Your task to perform on an android device: Add logitech g903 to the cart on newegg.com, then select checkout. Image 0: 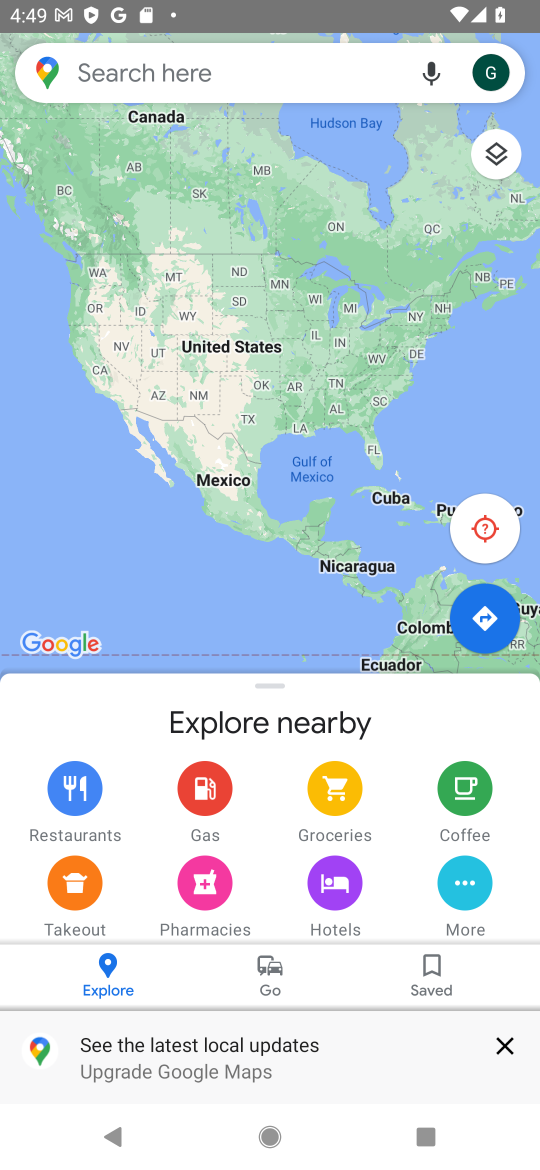
Step 0: press home button
Your task to perform on an android device: Add logitech g903 to the cart on newegg.com, then select checkout. Image 1: 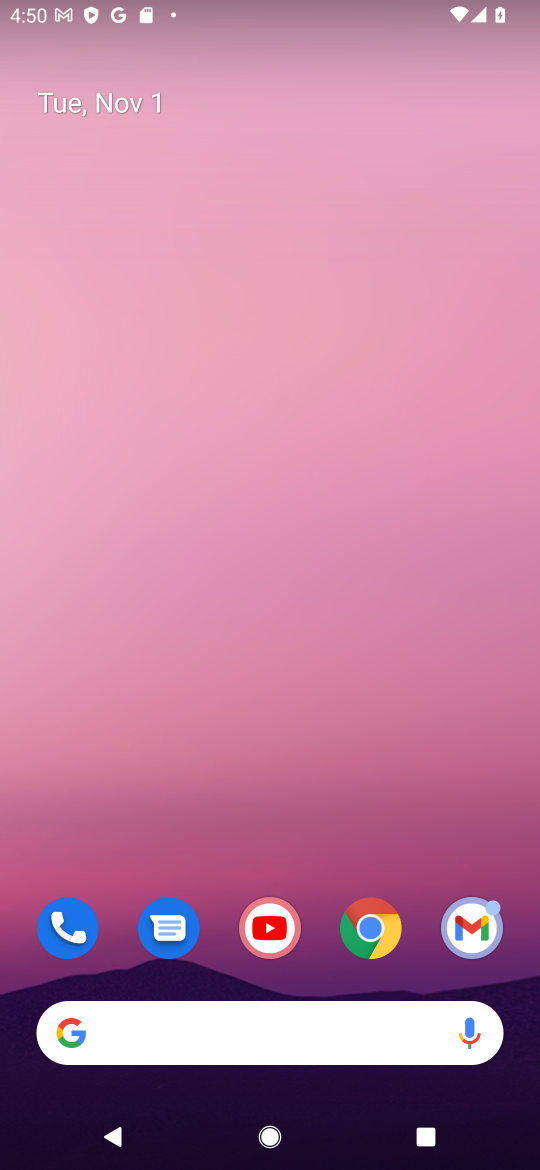
Step 1: click (379, 924)
Your task to perform on an android device: Add logitech g903 to the cart on newegg.com, then select checkout. Image 2: 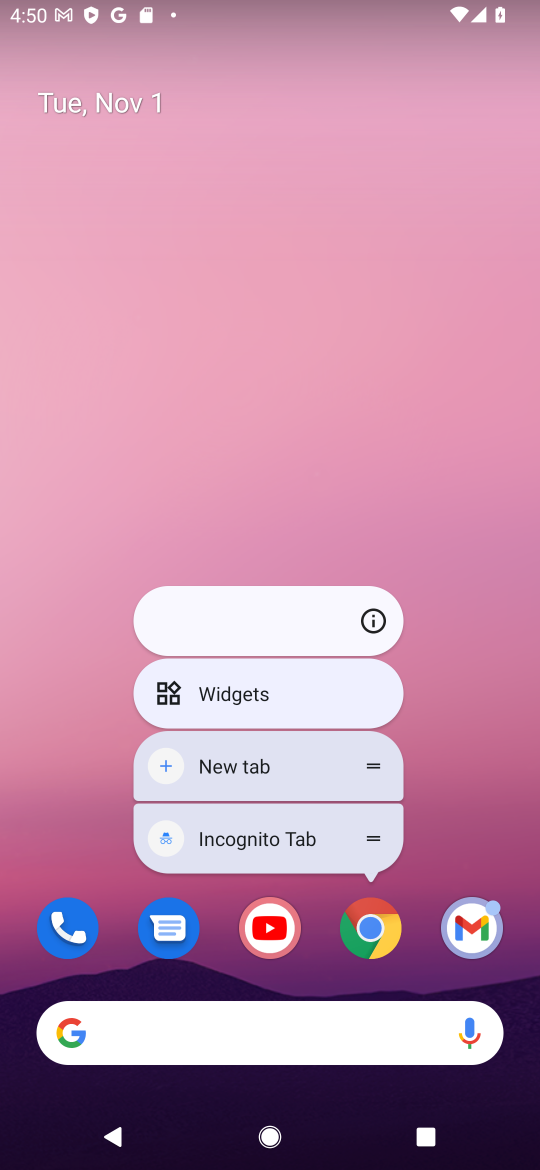
Step 2: click (387, 942)
Your task to perform on an android device: Add logitech g903 to the cart on newegg.com, then select checkout. Image 3: 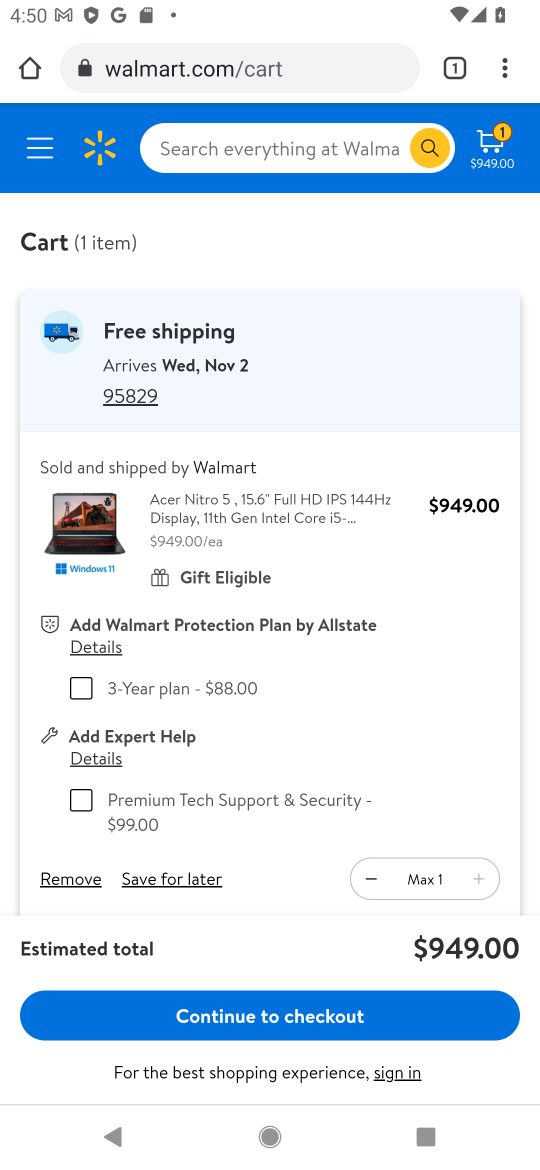
Step 3: click (274, 59)
Your task to perform on an android device: Add logitech g903 to the cart on newegg.com, then select checkout. Image 4: 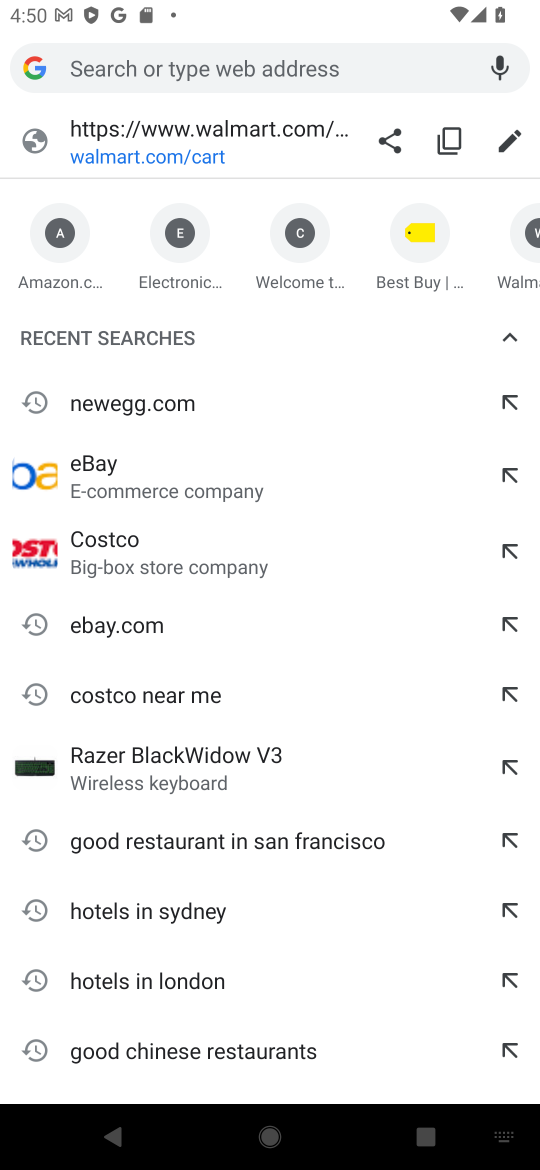
Step 4: type "newegg.com"
Your task to perform on an android device: Add logitech g903 to the cart on newegg.com, then select checkout. Image 5: 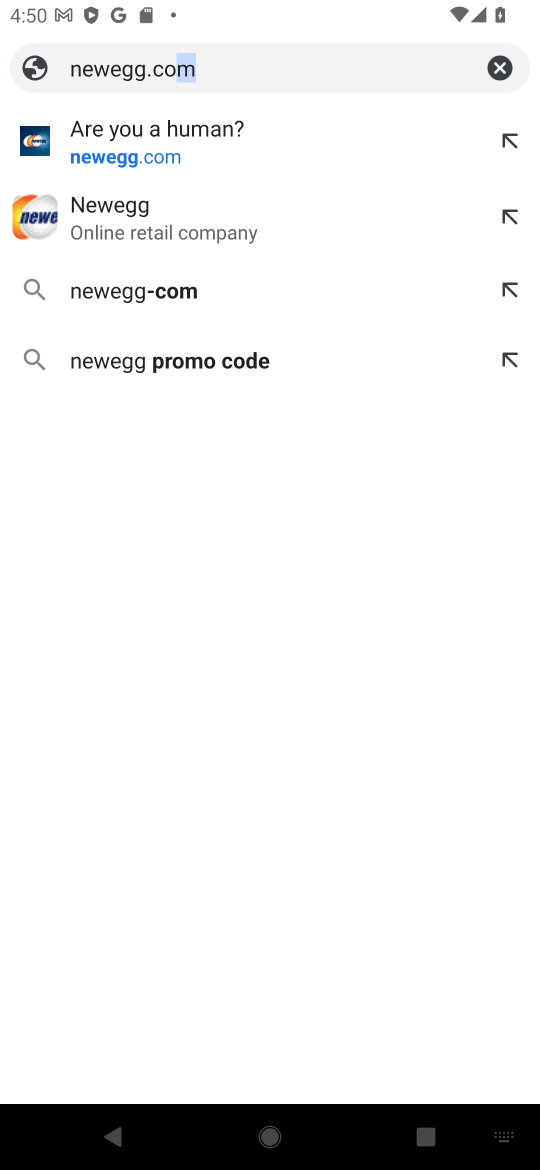
Step 5: type ""
Your task to perform on an android device: Add logitech g903 to the cart on newegg.com, then select checkout. Image 6: 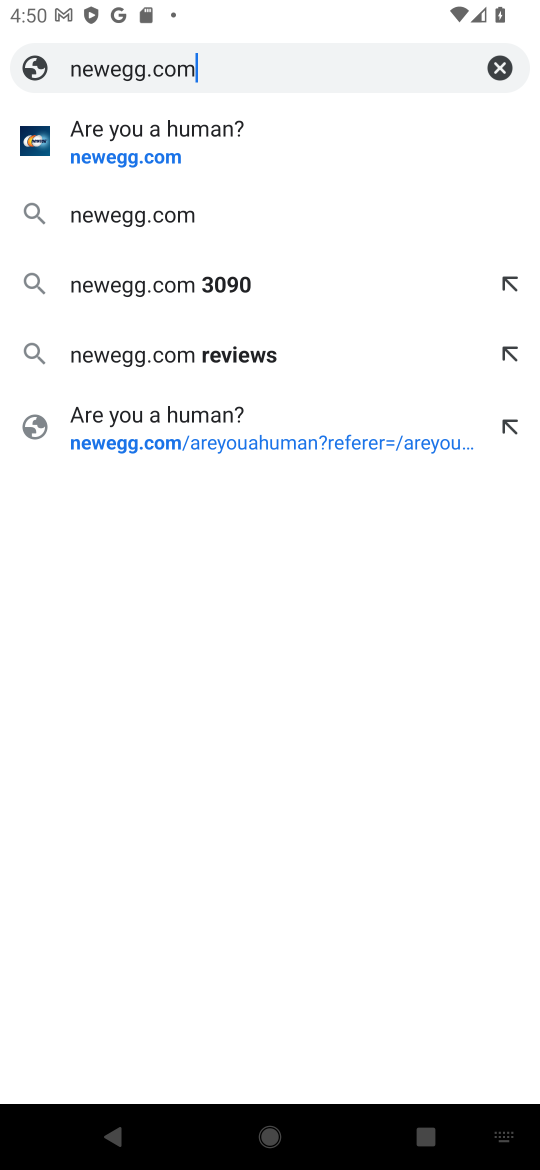
Step 6: press enter
Your task to perform on an android device: Add logitech g903 to the cart on newegg.com, then select checkout. Image 7: 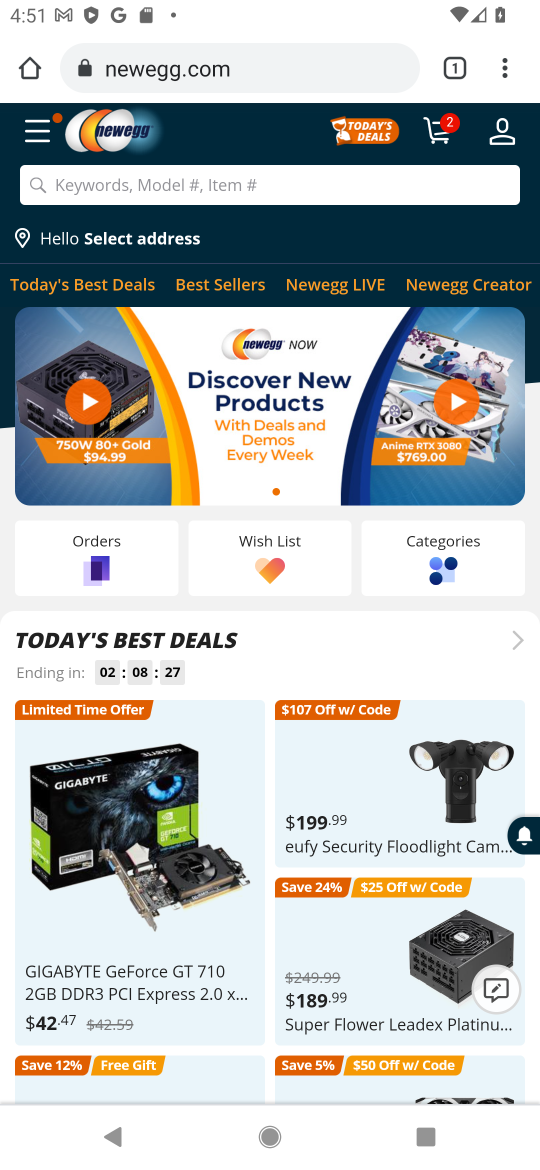
Step 7: click (375, 176)
Your task to perform on an android device: Add logitech g903 to the cart on newegg.com, then select checkout. Image 8: 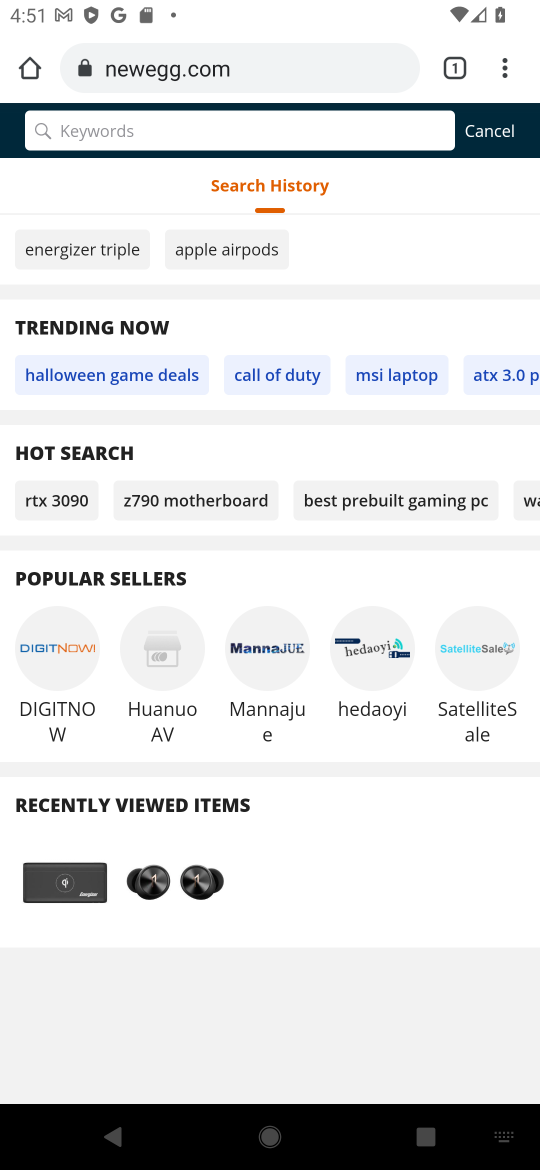
Step 8: type "logitech g903"
Your task to perform on an android device: Add logitech g903 to the cart on newegg.com, then select checkout. Image 9: 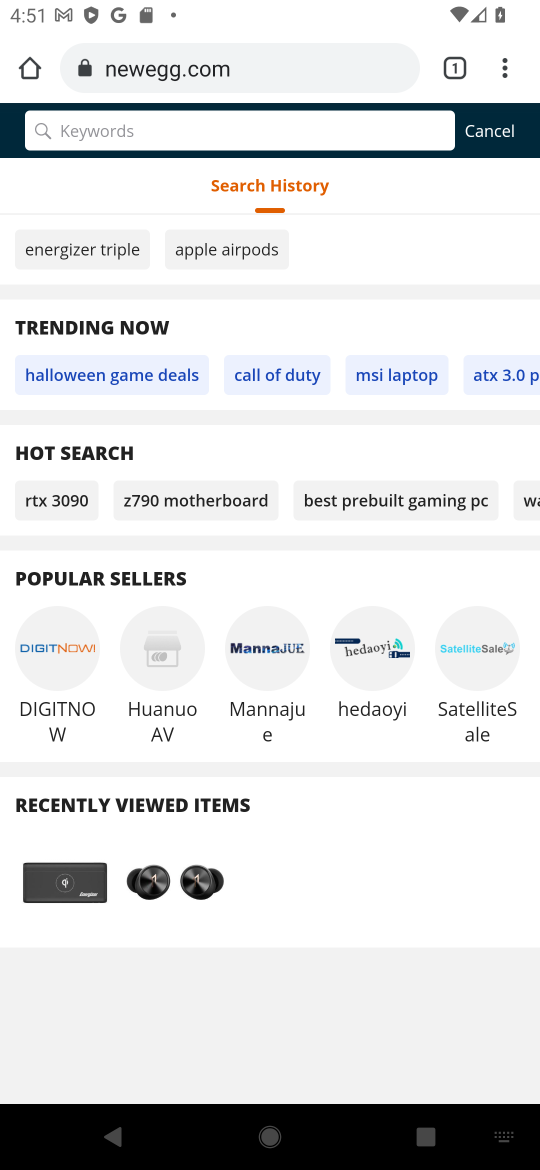
Step 9: type ""
Your task to perform on an android device: Add logitech g903 to the cart on newegg.com, then select checkout. Image 10: 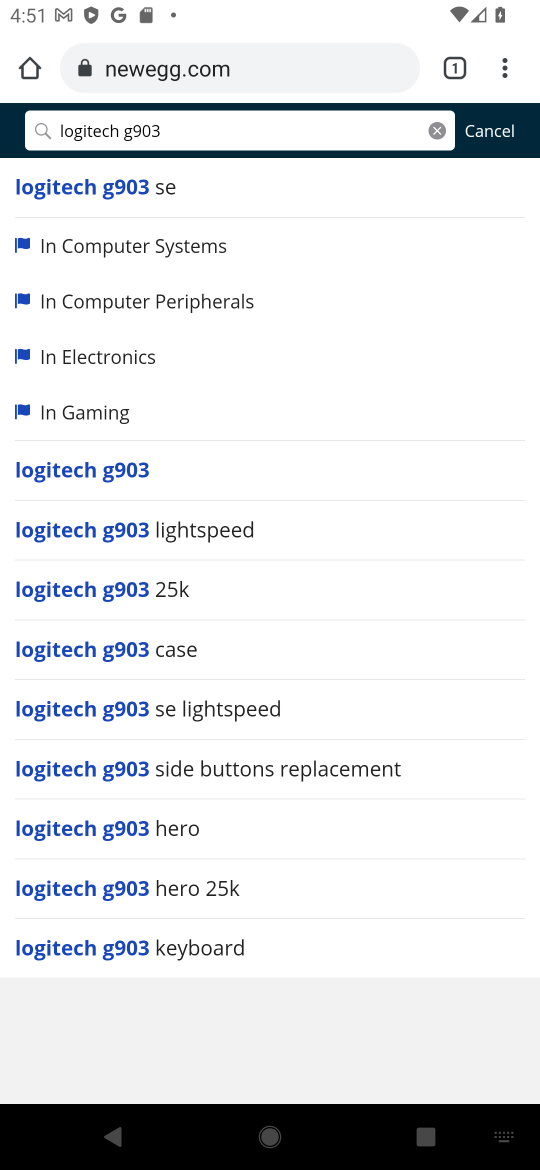
Step 10: press enter
Your task to perform on an android device: Add logitech g903 to the cart on newegg.com, then select checkout. Image 11: 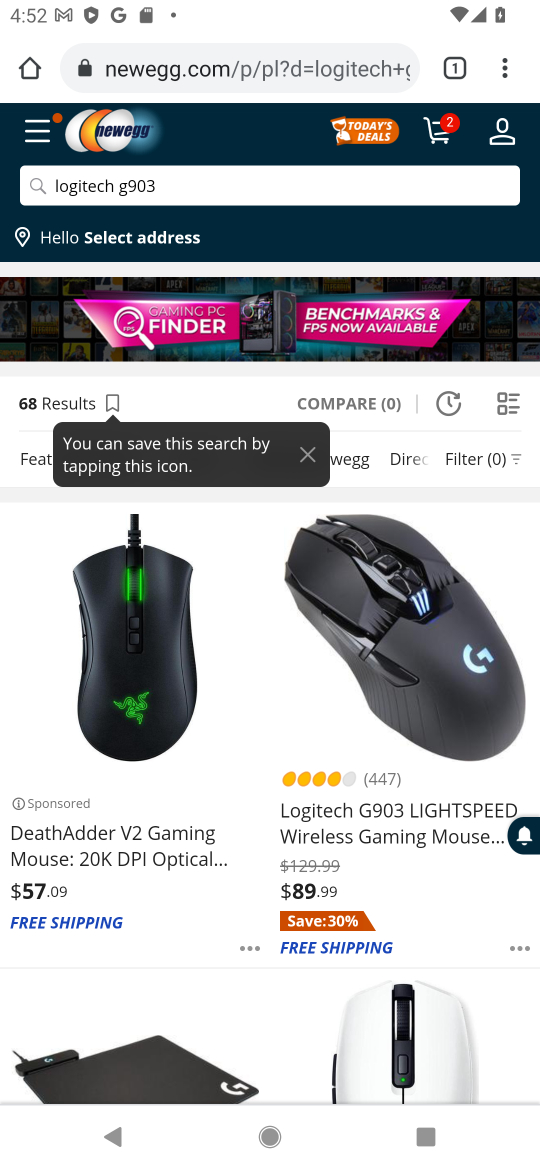
Step 11: drag from (73, 924) to (134, 745)
Your task to perform on an android device: Add logitech g903 to the cart on newegg.com, then select checkout. Image 12: 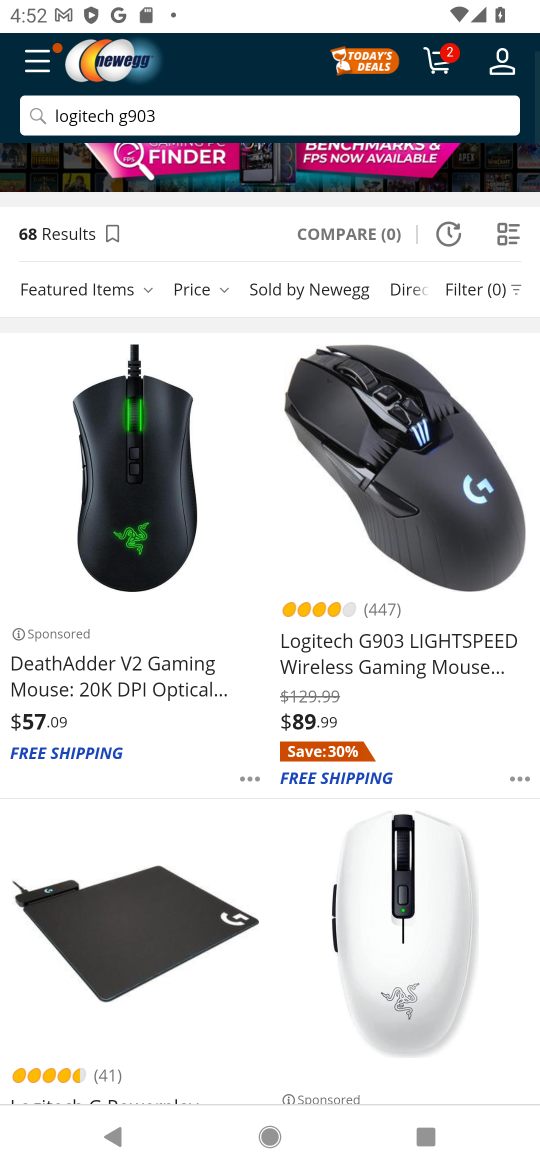
Step 12: click (273, 496)
Your task to perform on an android device: Add logitech g903 to the cart on newegg.com, then select checkout. Image 13: 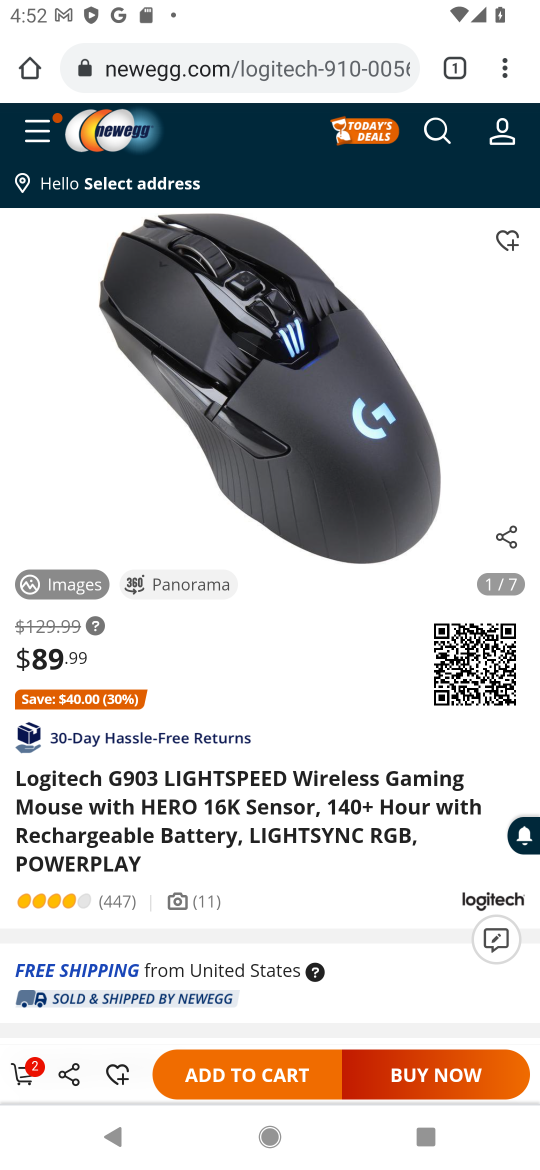
Step 13: click (261, 1088)
Your task to perform on an android device: Add logitech g903 to the cart on newegg.com, then select checkout. Image 14: 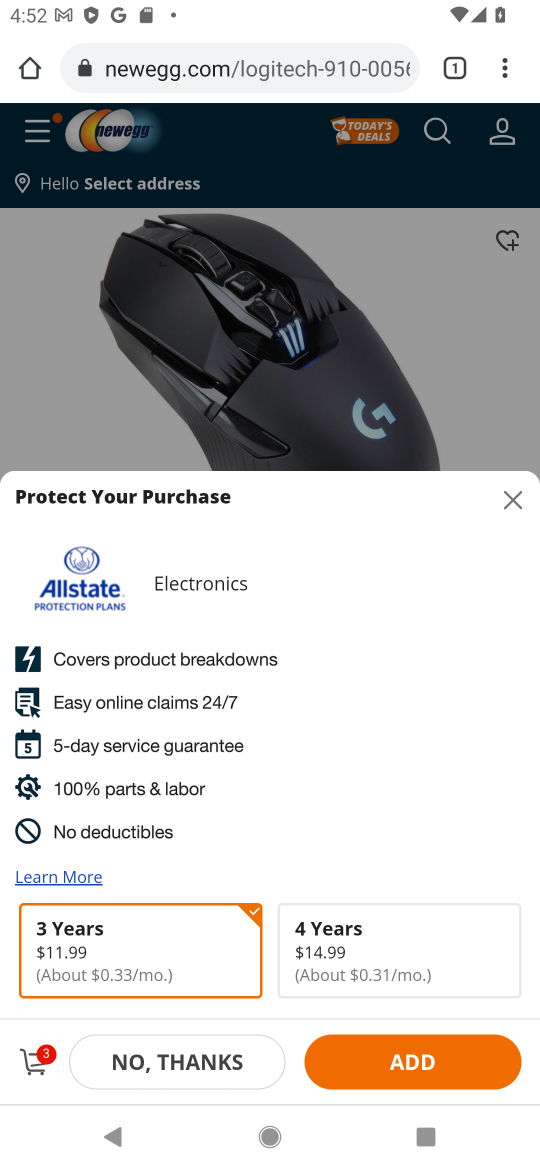
Step 14: click (214, 1066)
Your task to perform on an android device: Add logitech g903 to the cart on newegg.com, then select checkout. Image 15: 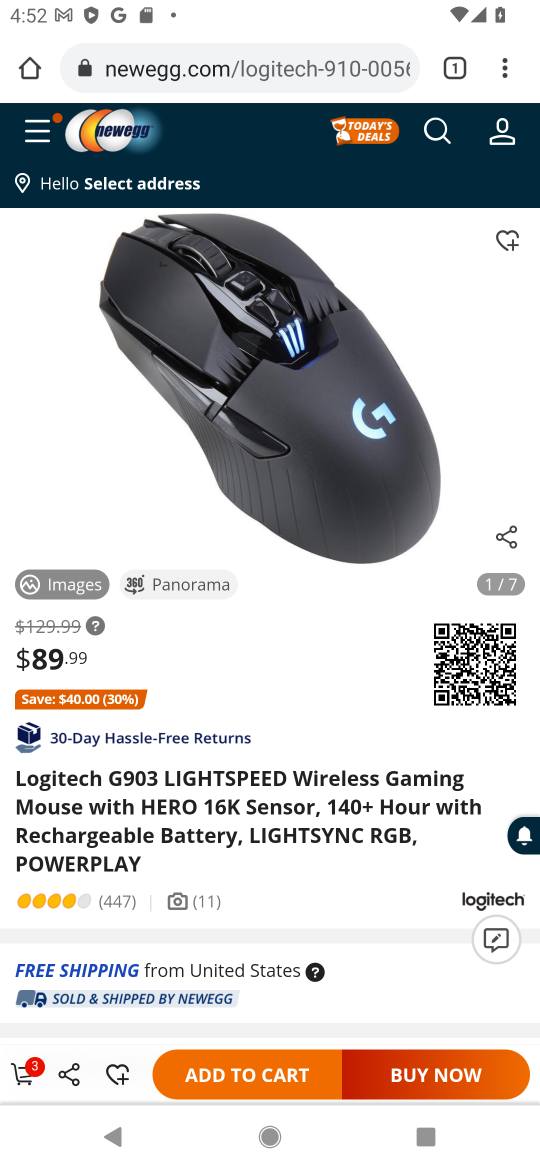
Step 15: click (17, 1073)
Your task to perform on an android device: Add logitech g903 to the cart on newegg.com, then select checkout. Image 16: 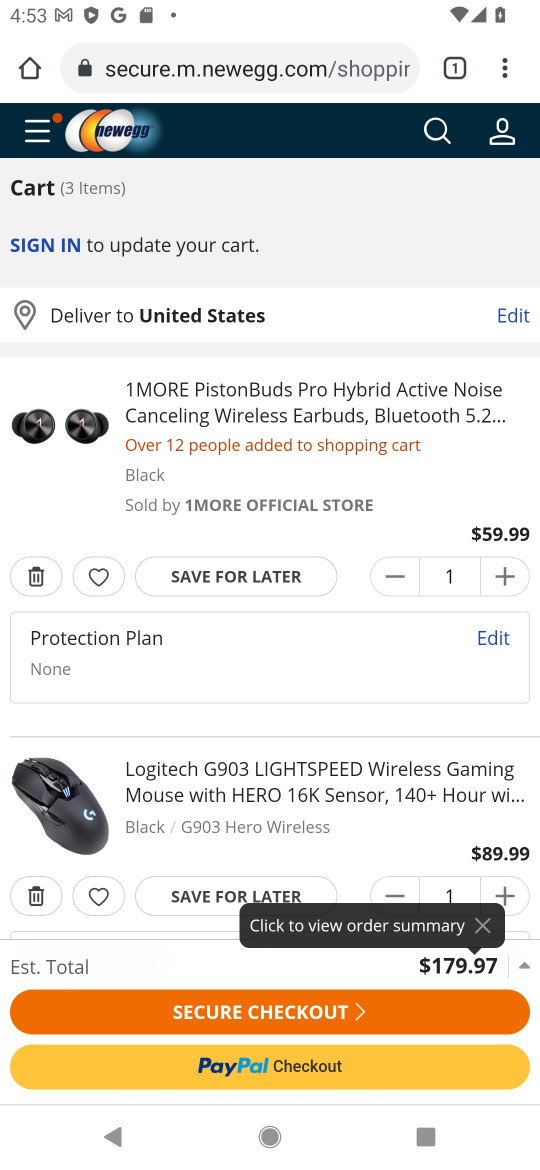
Step 16: drag from (302, 846) to (283, 692)
Your task to perform on an android device: Add logitech g903 to the cart on newegg.com, then select checkout. Image 17: 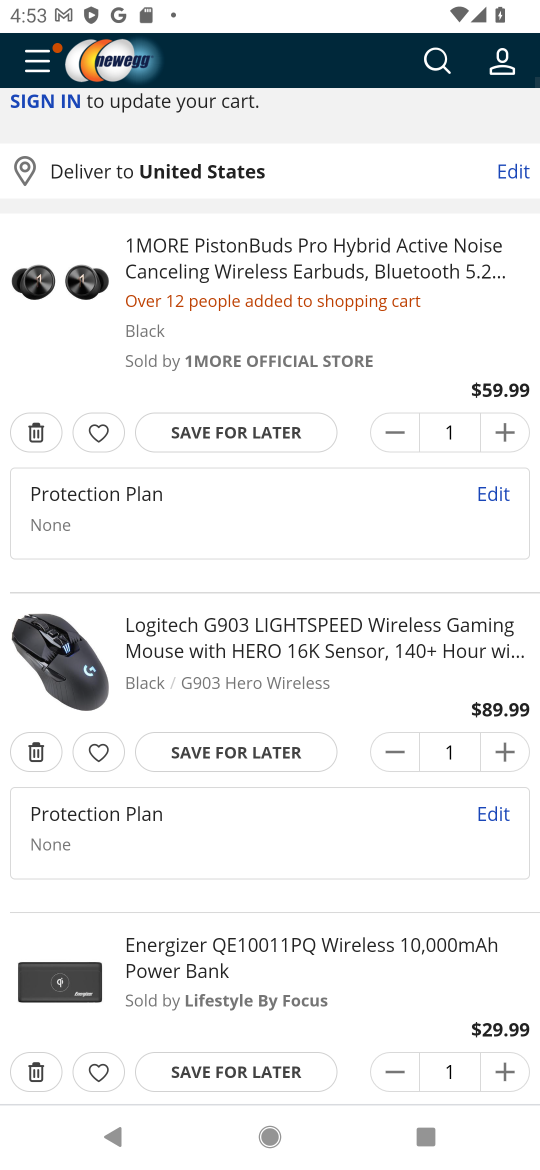
Step 17: drag from (320, 590) to (334, 868)
Your task to perform on an android device: Add logitech g903 to the cart on newegg.com, then select checkout. Image 18: 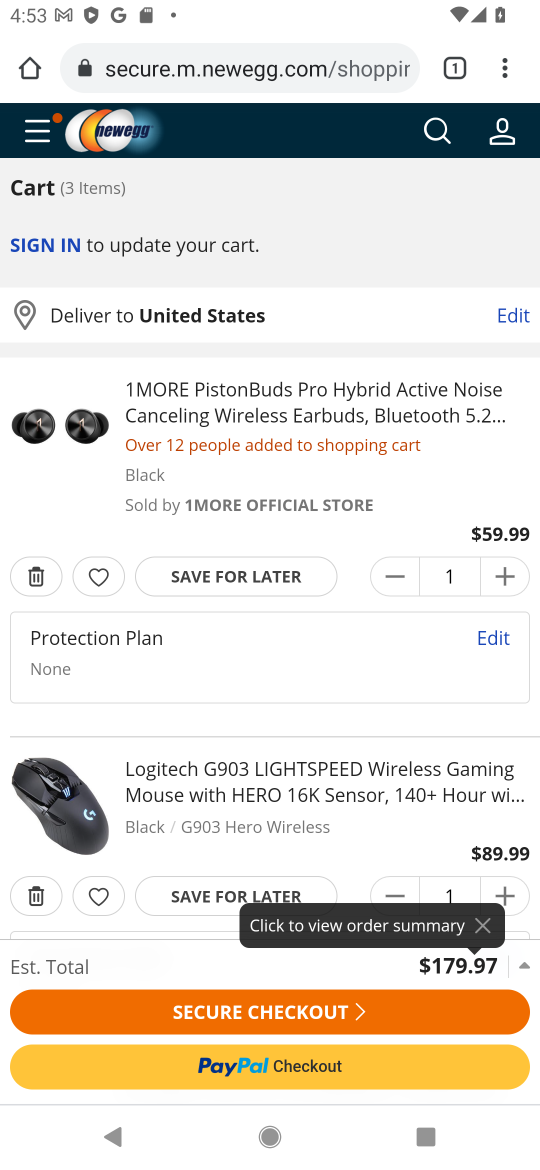
Step 18: click (311, 1018)
Your task to perform on an android device: Add logitech g903 to the cart on newegg.com, then select checkout. Image 19: 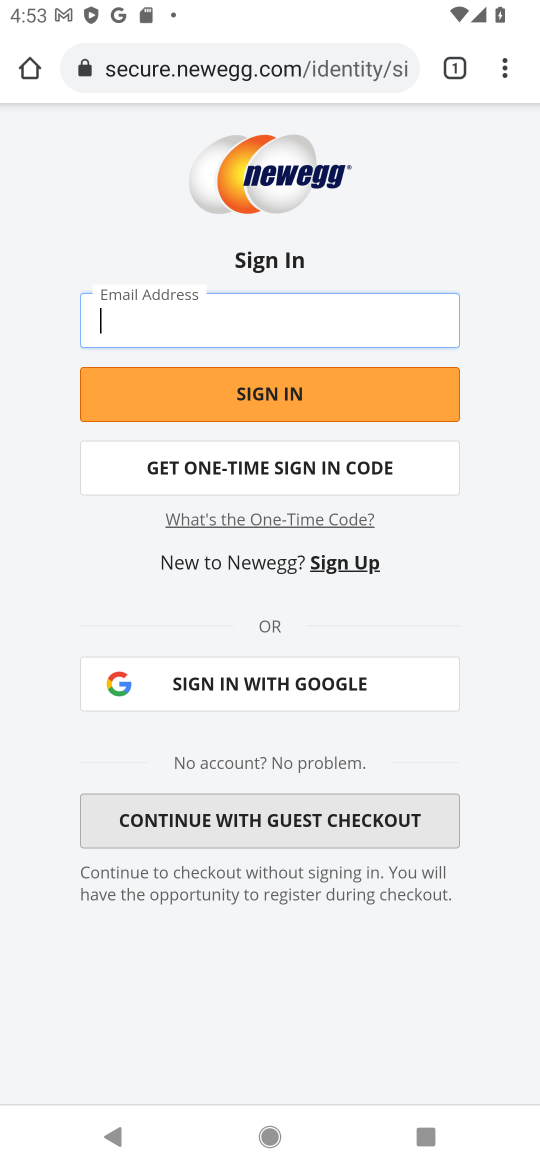
Step 19: task complete